Your task to perform on an android device: toggle data saver in the chrome app Image 0: 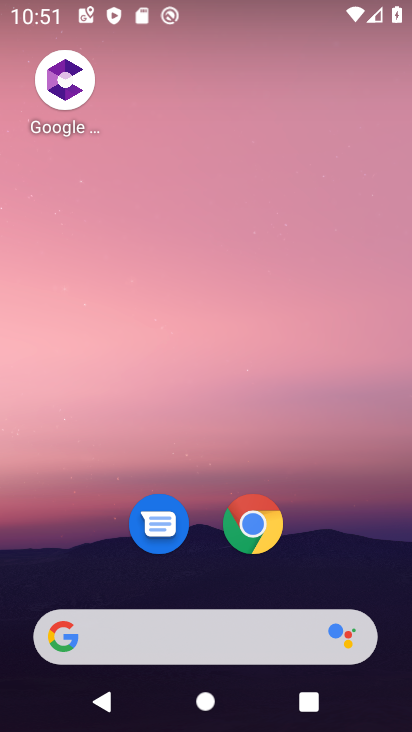
Step 0: drag from (208, 625) to (251, 93)
Your task to perform on an android device: toggle data saver in the chrome app Image 1: 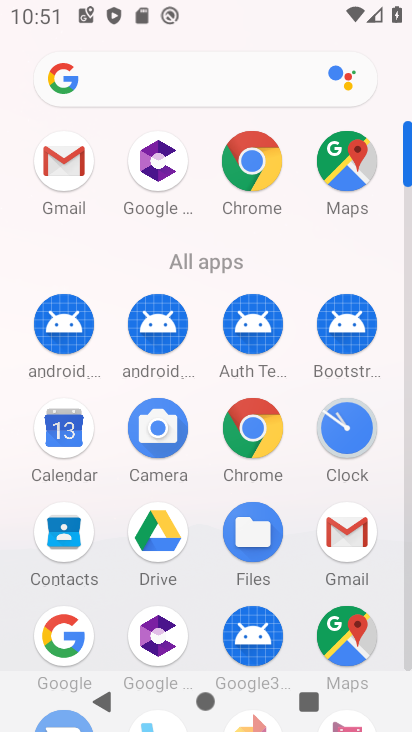
Step 1: click (247, 180)
Your task to perform on an android device: toggle data saver in the chrome app Image 2: 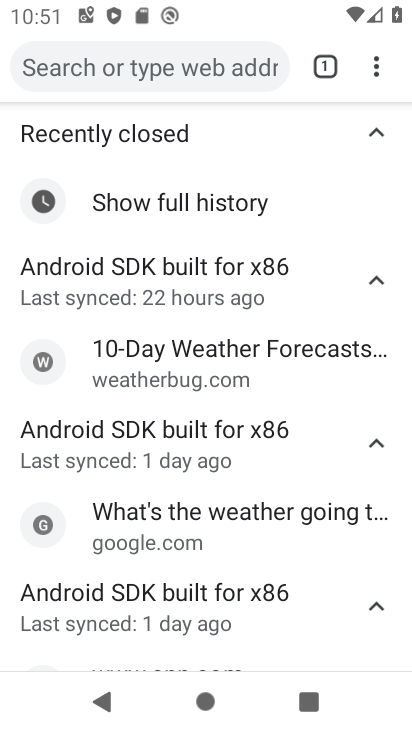
Step 2: drag from (377, 65) to (184, 565)
Your task to perform on an android device: toggle data saver in the chrome app Image 3: 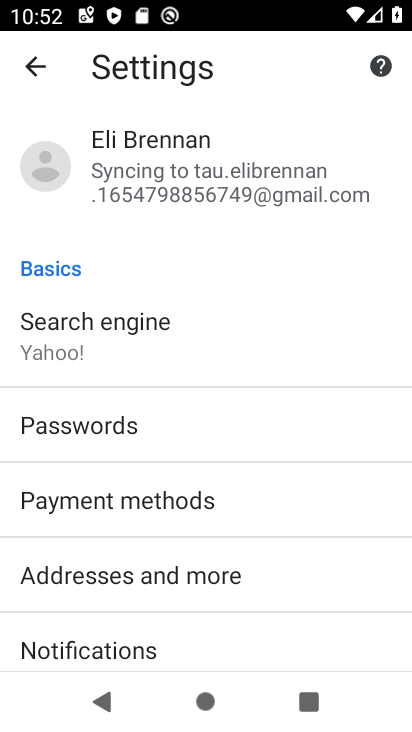
Step 3: drag from (174, 627) to (257, 186)
Your task to perform on an android device: toggle data saver in the chrome app Image 4: 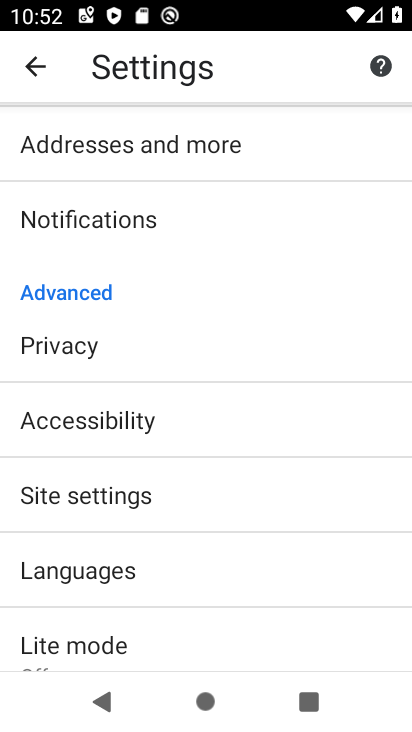
Step 4: click (90, 636)
Your task to perform on an android device: toggle data saver in the chrome app Image 5: 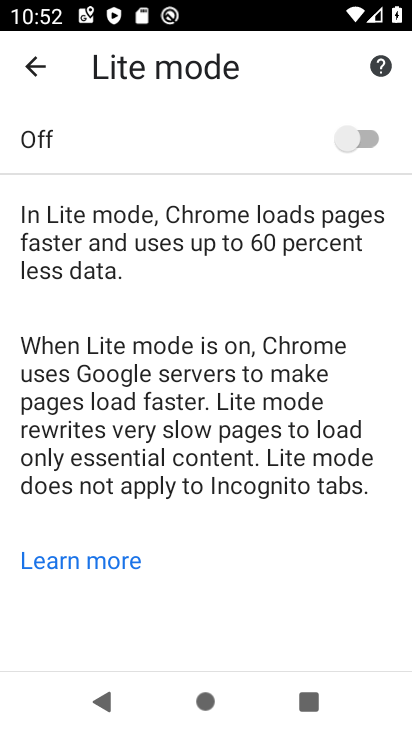
Step 5: click (367, 136)
Your task to perform on an android device: toggle data saver in the chrome app Image 6: 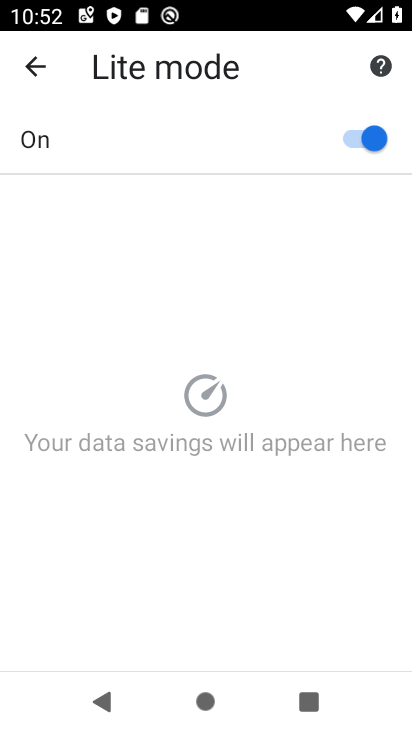
Step 6: task complete